Your task to perform on an android device: turn off sleep mode Image 0: 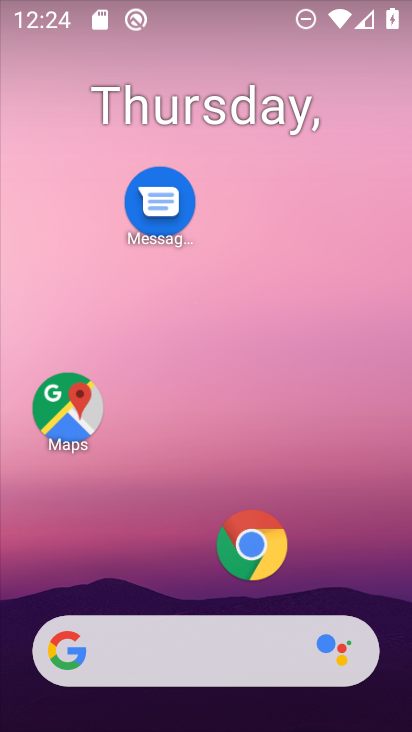
Step 0: drag from (198, 582) to (260, 112)
Your task to perform on an android device: turn off sleep mode Image 1: 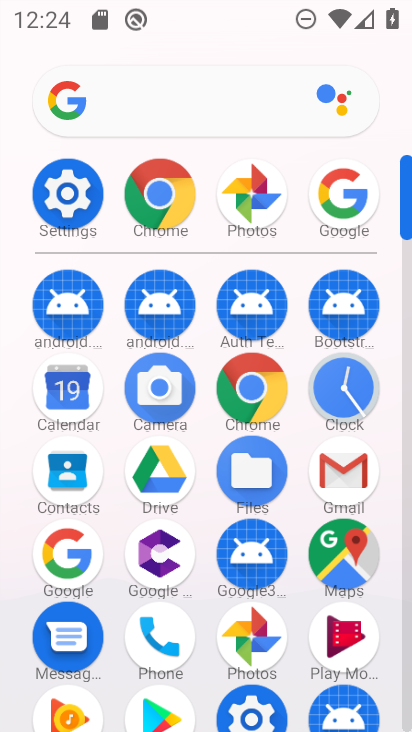
Step 1: click (65, 201)
Your task to perform on an android device: turn off sleep mode Image 2: 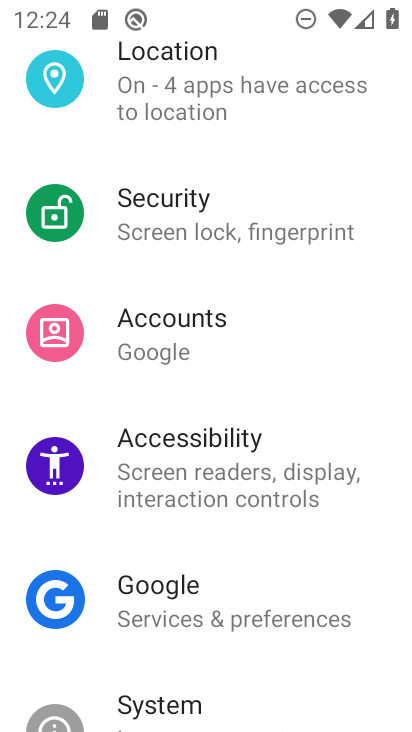
Step 2: drag from (65, 201) to (124, 569)
Your task to perform on an android device: turn off sleep mode Image 3: 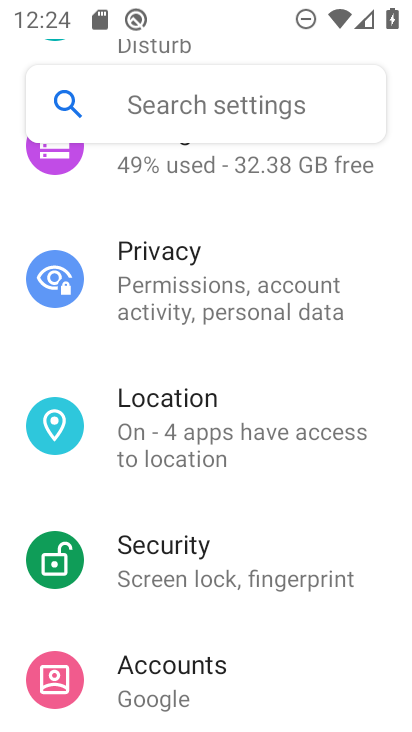
Step 3: drag from (183, 244) to (210, 561)
Your task to perform on an android device: turn off sleep mode Image 4: 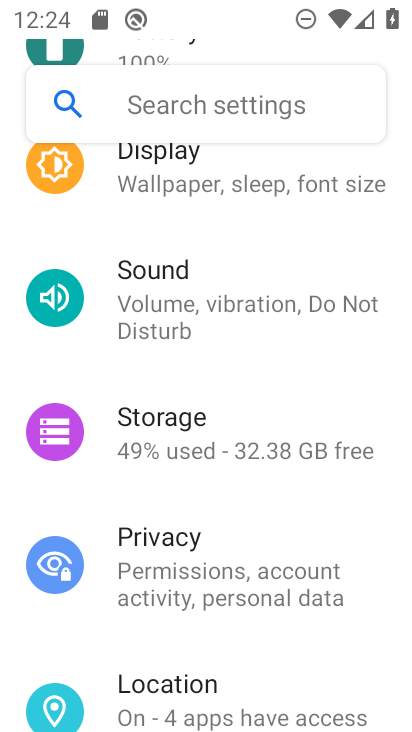
Step 4: drag from (172, 195) to (186, 313)
Your task to perform on an android device: turn off sleep mode Image 5: 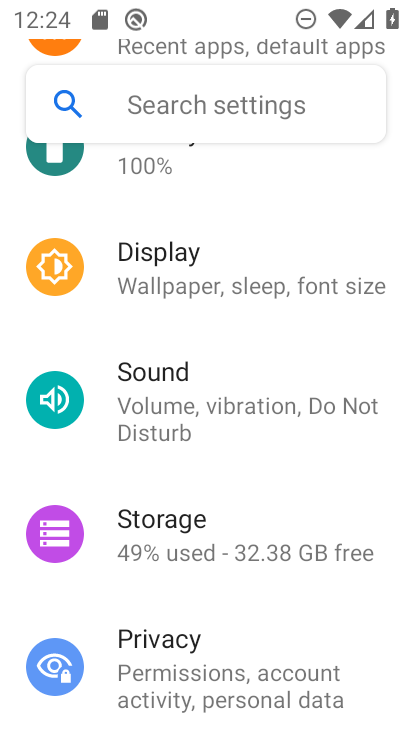
Step 5: click (186, 313)
Your task to perform on an android device: turn off sleep mode Image 6: 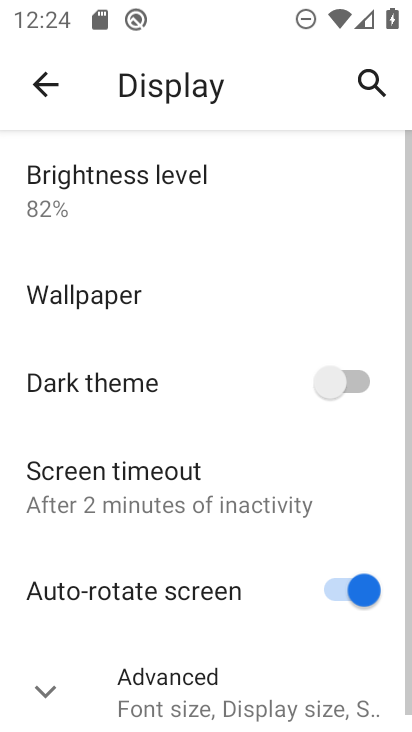
Step 6: drag from (175, 607) to (169, 413)
Your task to perform on an android device: turn off sleep mode Image 7: 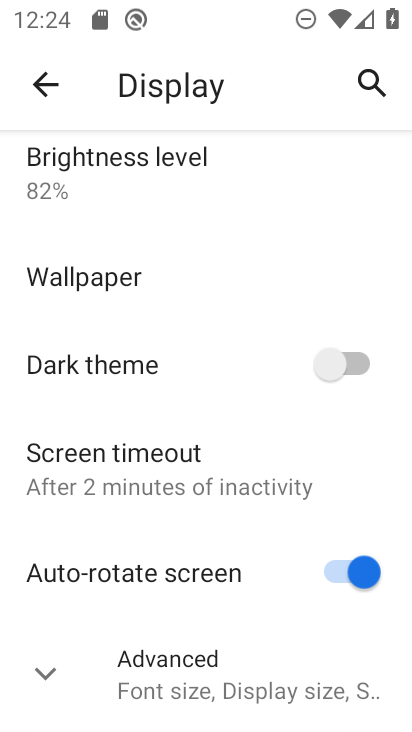
Step 7: click (128, 440)
Your task to perform on an android device: turn off sleep mode Image 8: 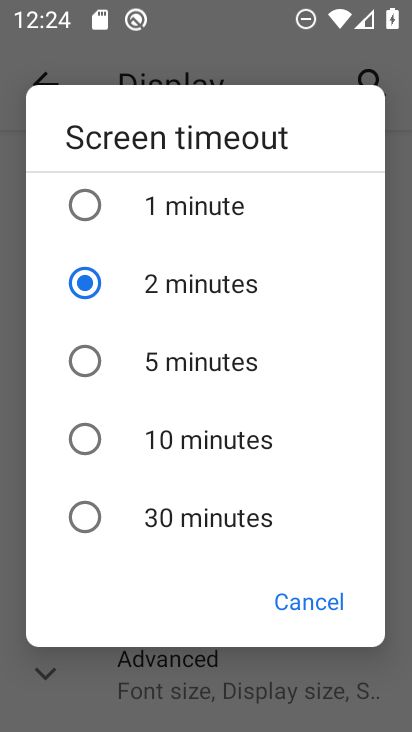
Step 8: click (157, 437)
Your task to perform on an android device: turn off sleep mode Image 9: 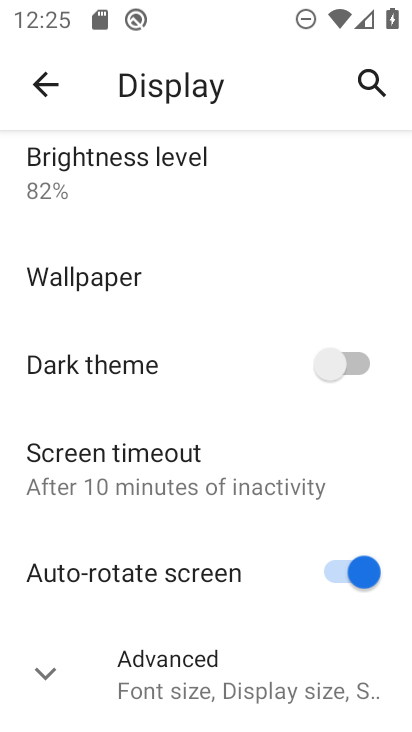
Step 9: task complete